Your task to perform on an android device: Open calendar and show me the first week of next month Image 0: 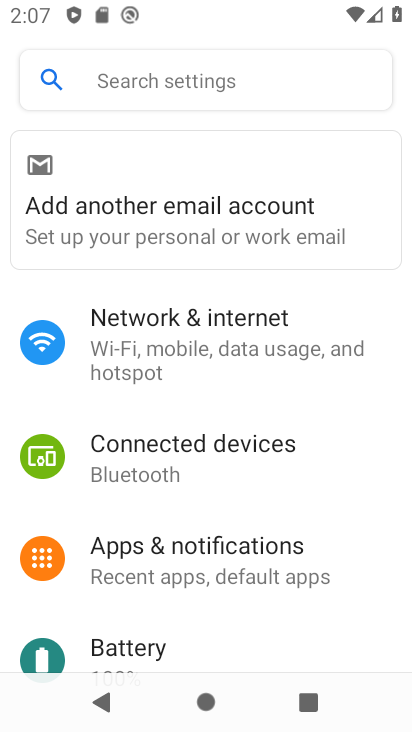
Step 0: press back button
Your task to perform on an android device: Open calendar and show me the first week of next month Image 1: 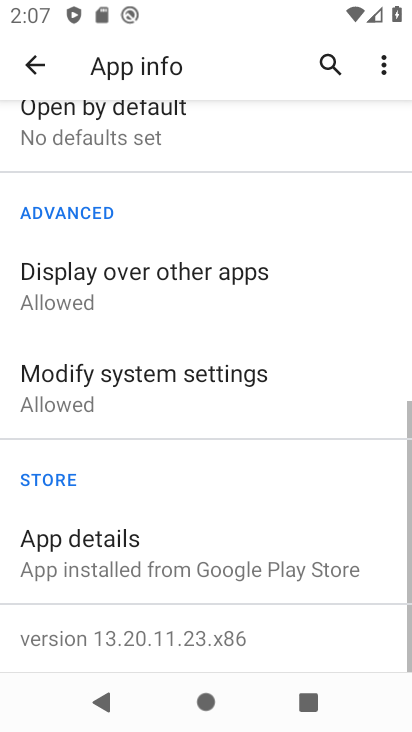
Step 1: press back button
Your task to perform on an android device: Open calendar and show me the first week of next month Image 2: 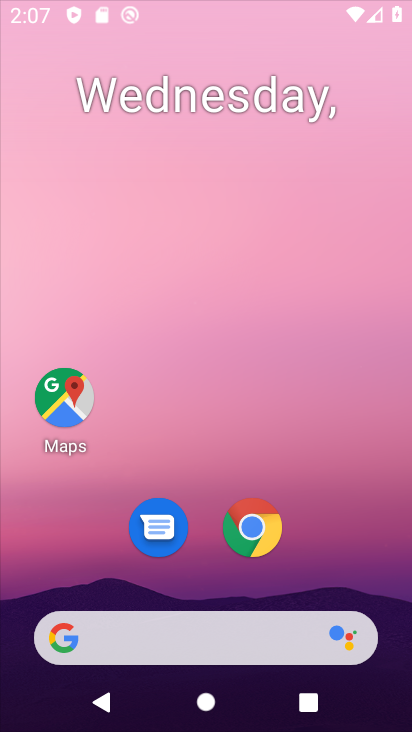
Step 2: press back button
Your task to perform on an android device: Open calendar and show me the first week of next month Image 3: 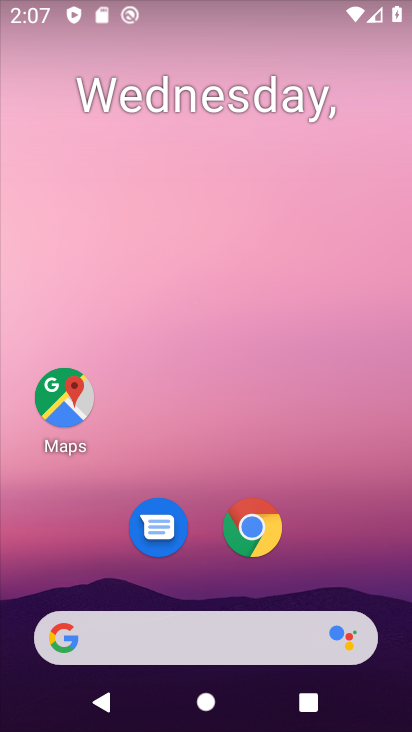
Step 3: drag from (332, 559) to (195, 55)
Your task to perform on an android device: Open calendar and show me the first week of next month Image 4: 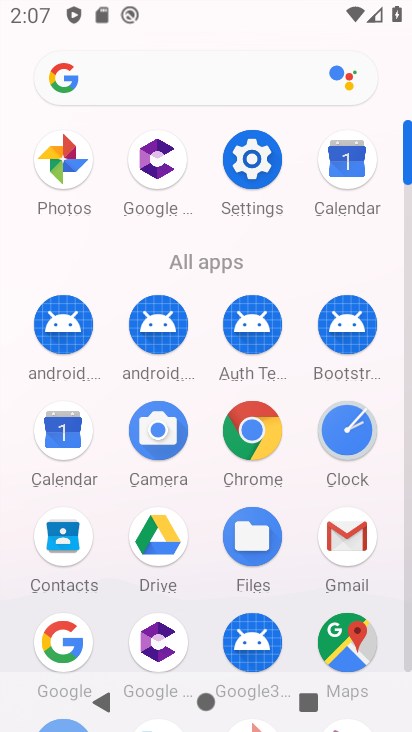
Step 4: click (348, 168)
Your task to perform on an android device: Open calendar and show me the first week of next month Image 5: 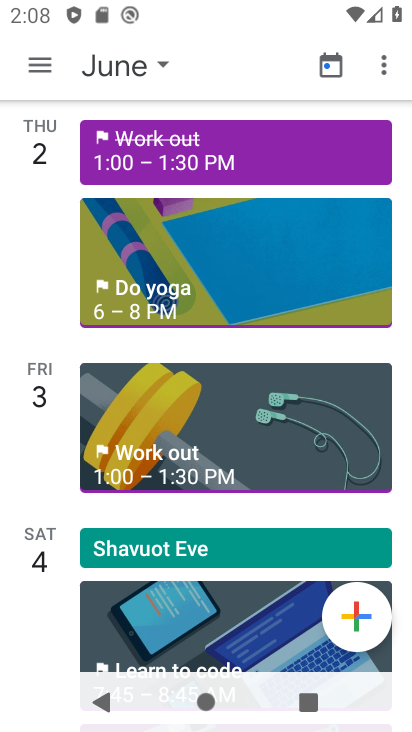
Step 5: click (332, 63)
Your task to perform on an android device: Open calendar and show me the first week of next month Image 6: 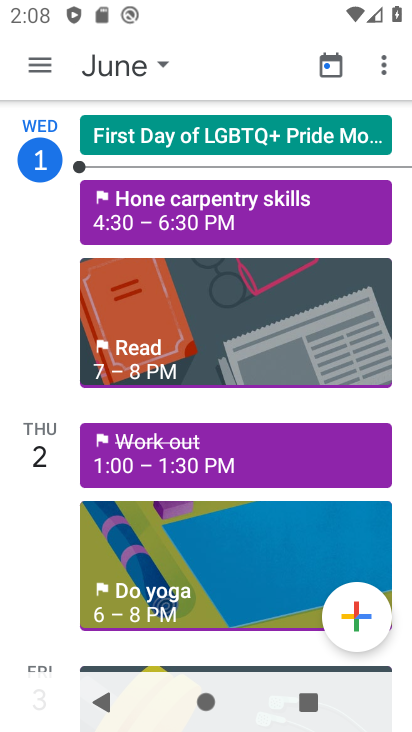
Step 6: click (162, 69)
Your task to perform on an android device: Open calendar and show me the first week of next month Image 7: 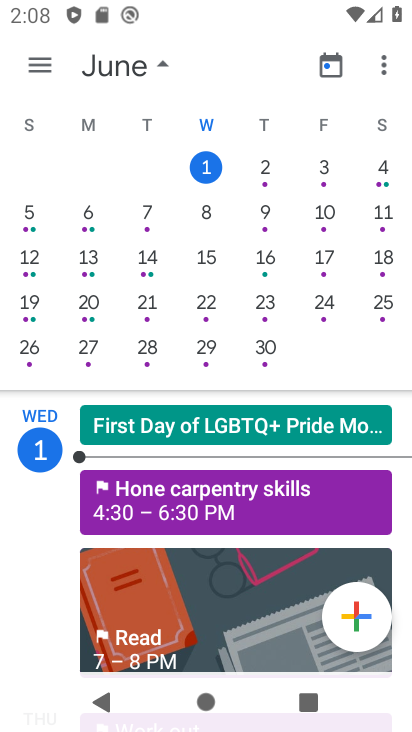
Step 7: drag from (350, 283) to (0, 293)
Your task to perform on an android device: Open calendar and show me the first week of next month Image 8: 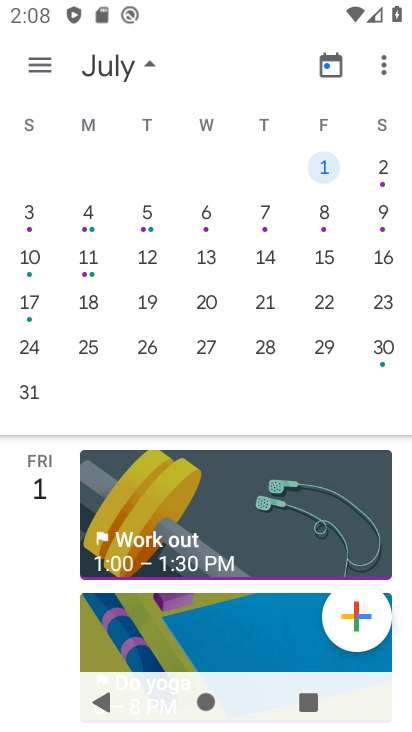
Step 8: click (95, 223)
Your task to perform on an android device: Open calendar and show me the first week of next month Image 9: 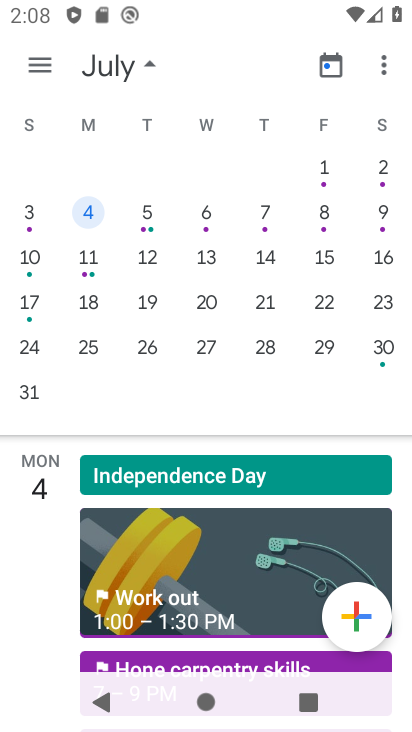
Step 9: click (43, 65)
Your task to perform on an android device: Open calendar and show me the first week of next month Image 10: 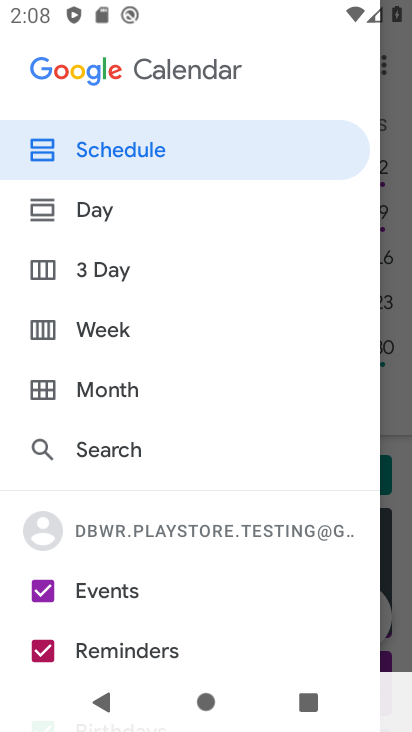
Step 10: click (111, 332)
Your task to perform on an android device: Open calendar and show me the first week of next month Image 11: 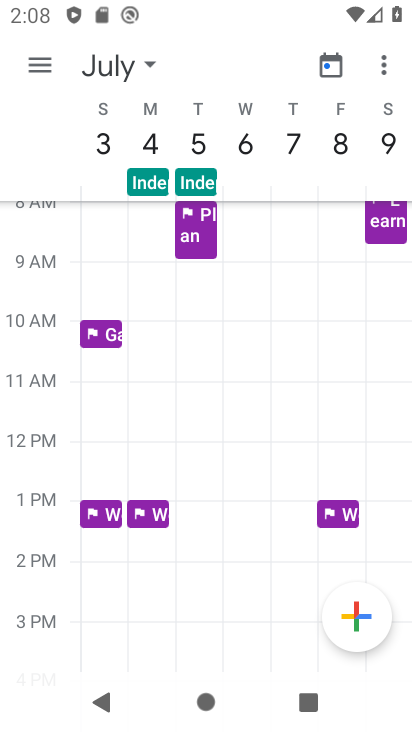
Step 11: task complete